Your task to perform on an android device: Go to wifi settings Image 0: 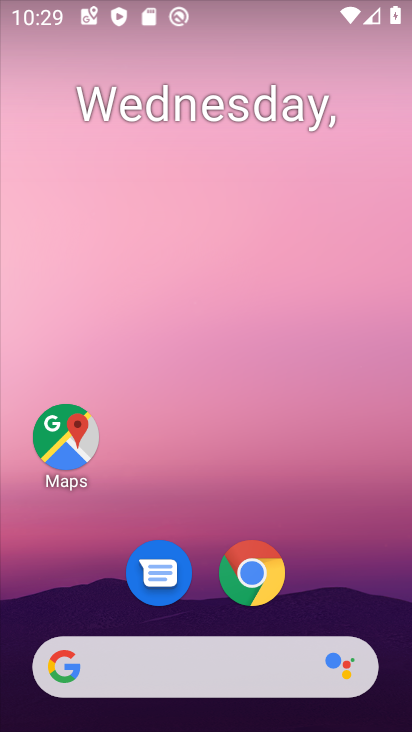
Step 0: click (405, 547)
Your task to perform on an android device: Go to wifi settings Image 1: 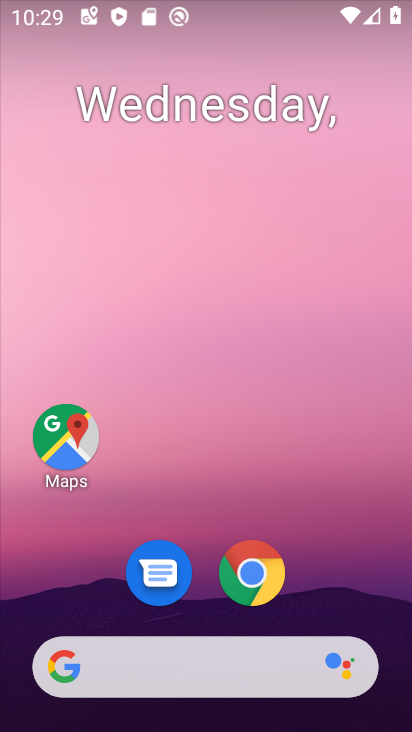
Step 1: drag from (361, 575) to (361, 186)
Your task to perform on an android device: Go to wifi settings Image 2: 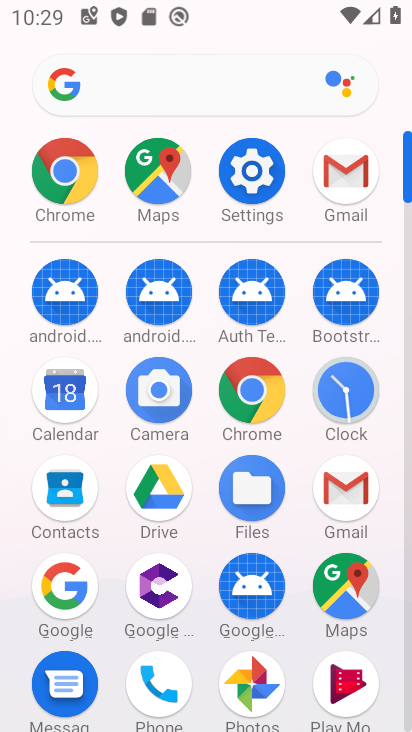
Step 2: click (249, 183)
Your task to perform on an android device: Go to wifi settings Image 3: 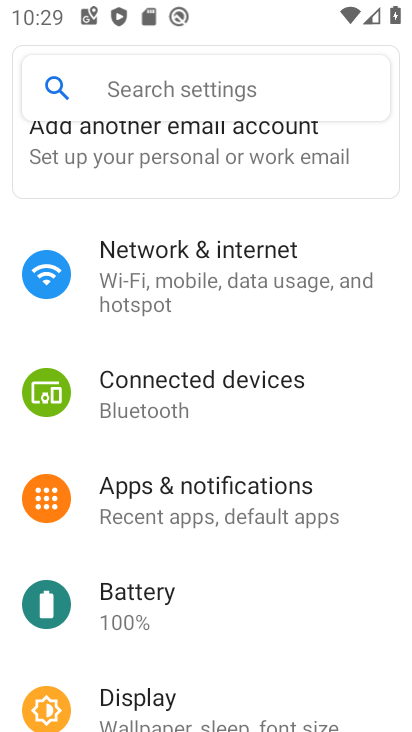
Step 3: click (281, 280)
Your task to perform on an android device: Go to wifi settings Image 4: 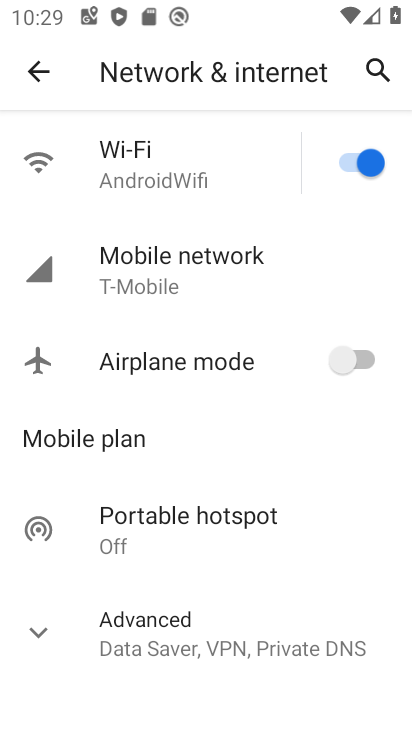
Step 4: click (188, 167)
Your task to perform on an android device: Go to wifi settings Image 5: 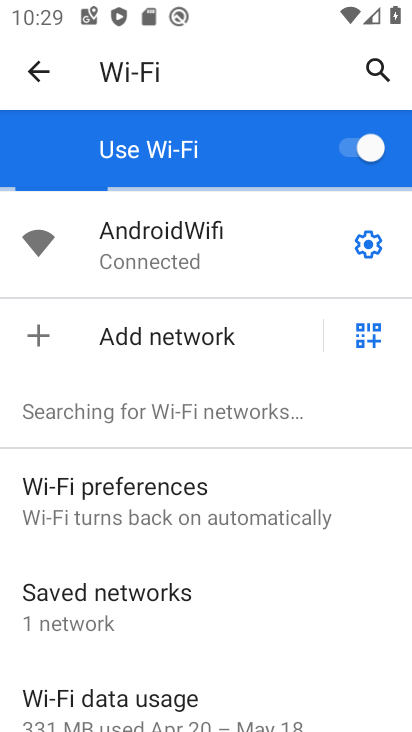
Step 5: task complete